Your task to perform on an android device: turn off picture-in-picture Image 0: 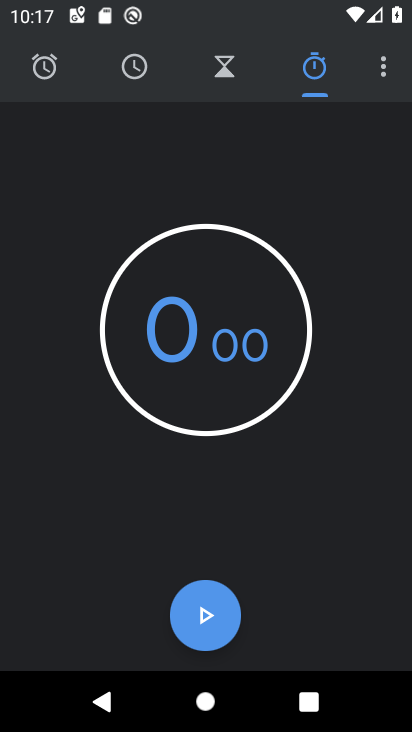
Step 0: press home button
Your task to perform on an android device: turn off picture-in-picture Image 1: 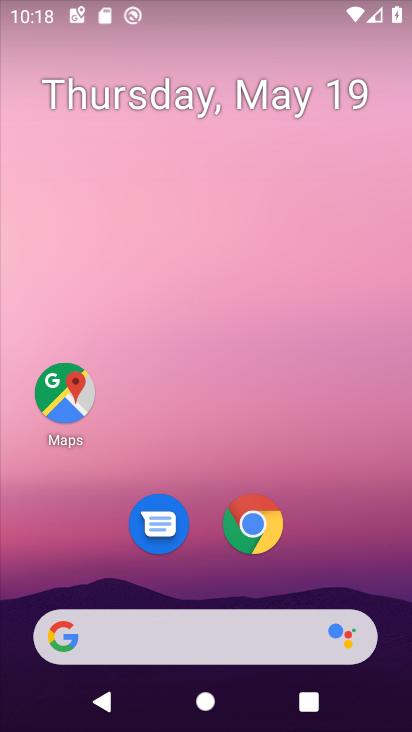
Step 1: click (252, 509)
Your task to perform on an android device: turn off picture-in-picture Image 2: 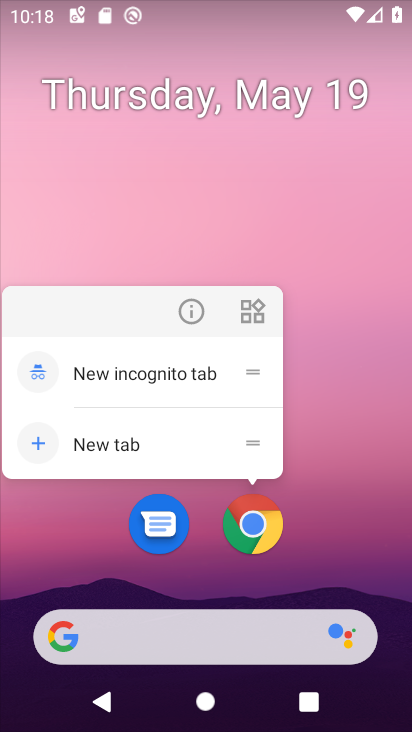
Step 2: click (191, 312)
Your task to perform on an android device: turn off picture-in-picture Image 3: 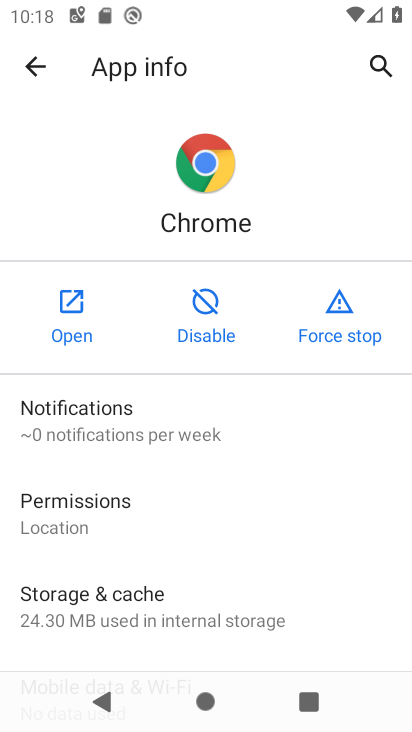
Step 3: drag from (220, 508) to (220, 275)
Your task to perform on an android device: turn off picture-in-picture Image 4: 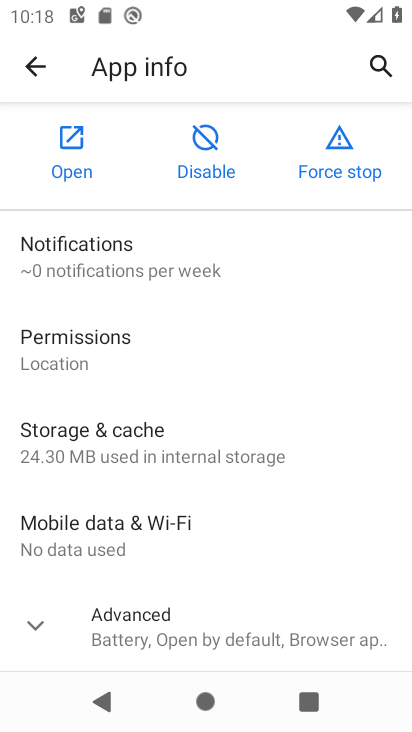
Step 4: click (34, 629)
Your task to perform on an android device: turn off picture-in-picture Image 5: 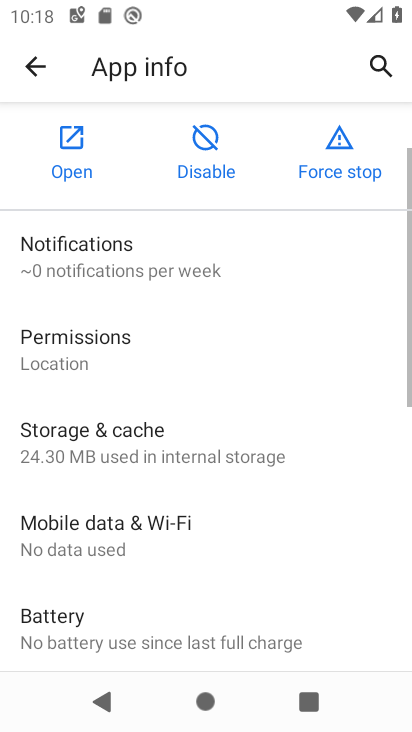
Step 5: drag from (209, 509) to (256, 159)
Your task to perform on an android device: turn off picture-in-picture Image 6: 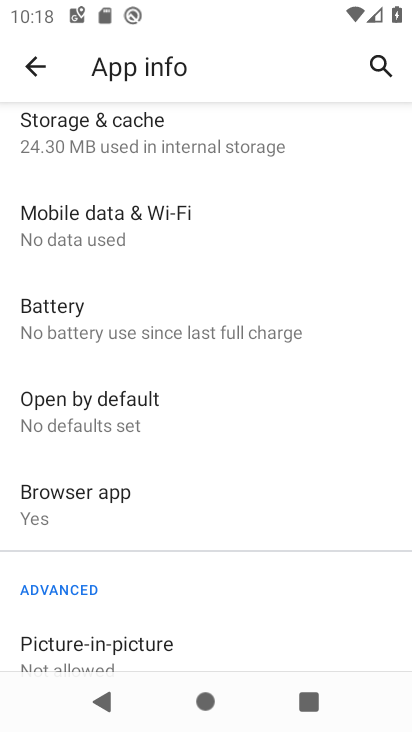
Step 6: drag from (254, 461) to (265, 179)
Your task to perform on an android device: turn off picture-in-picture Image 7: 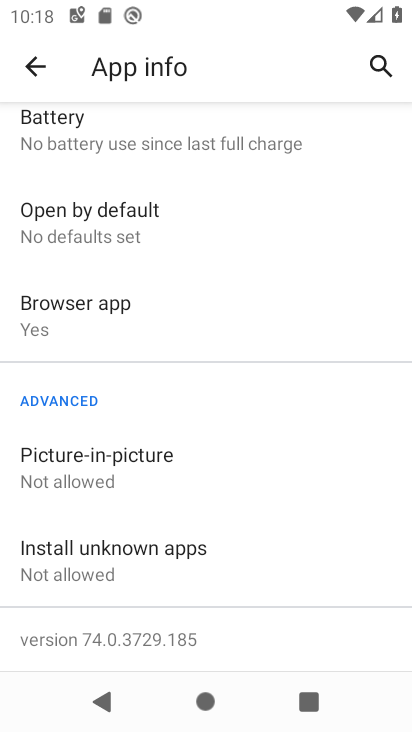
Step 7: click (134, 471)
Your task to perform on an android device: turn off picture-in-picture Image 8: 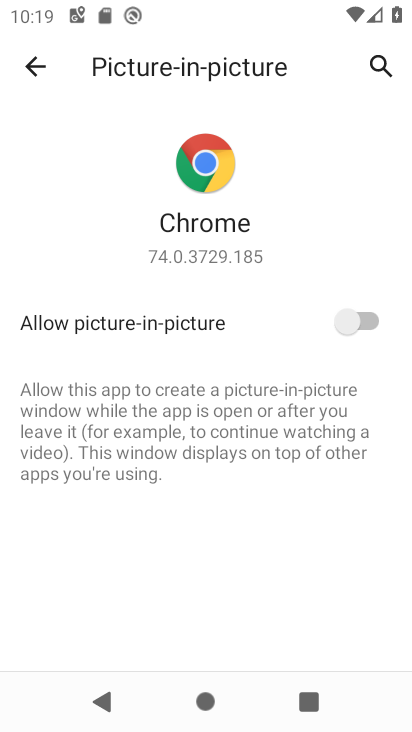
Step 8: task complete